Your task to perform on an android device: open app "Firefox Browser" Image 0: 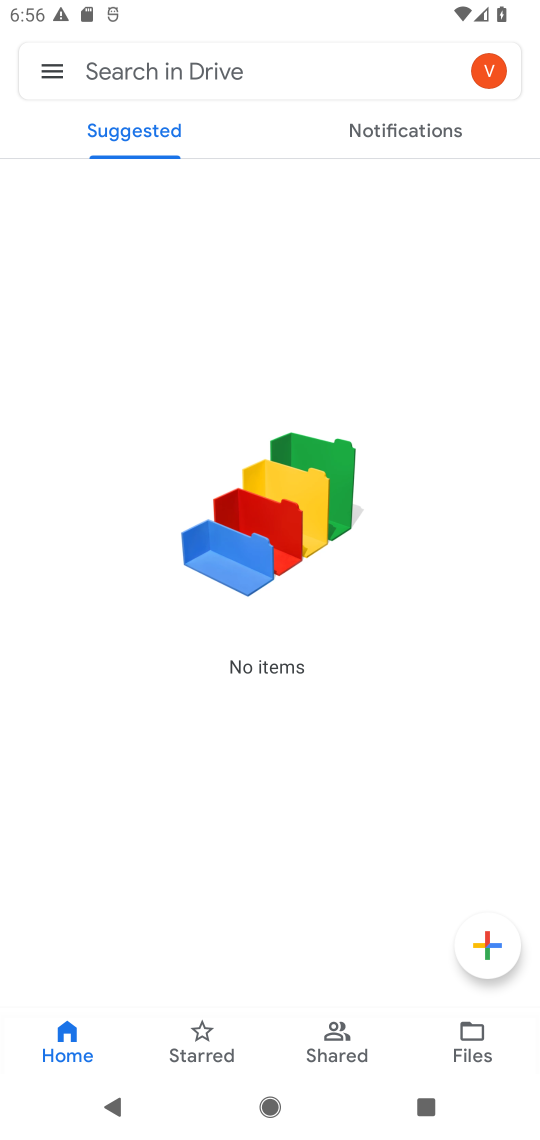
Step 0: press home button
Your task to perform on an android device: open app "Firefox Browser" Image 1: 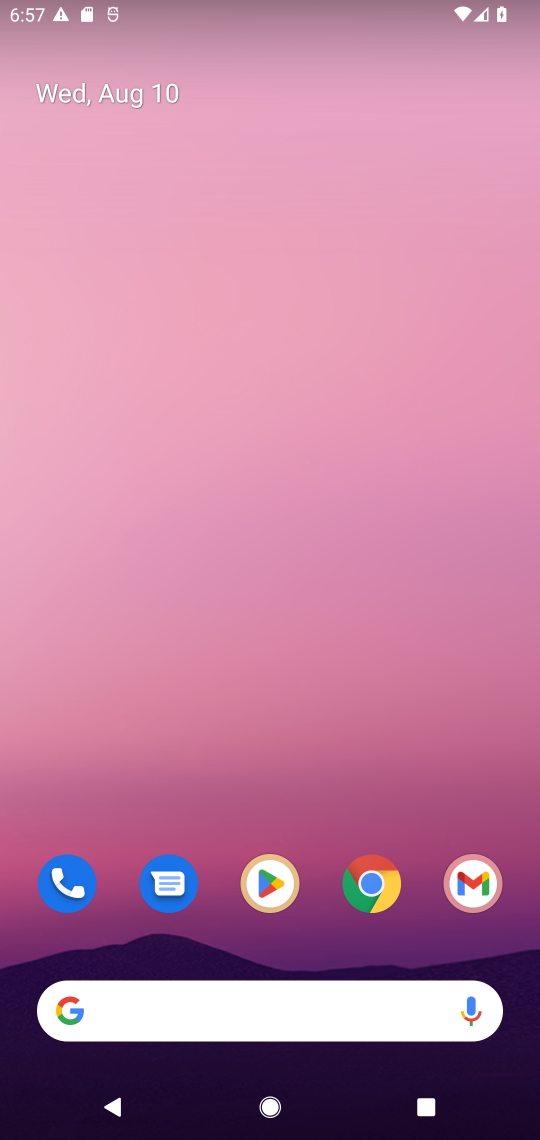
Step 1: drag from (319, 904) to (213, 18)
Your task to perform on an android device: open app "Firefox Browser" Image 2: 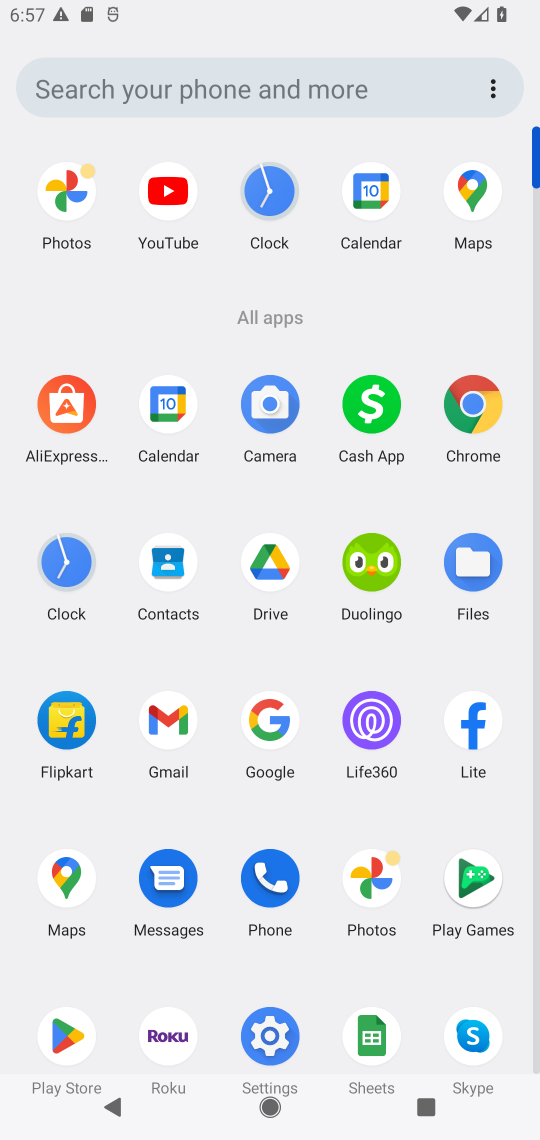
Step 2: drag from (384, 855) to (396, 297)
Your task to perform on an android device: open app "Firefox Browser" Image 3: 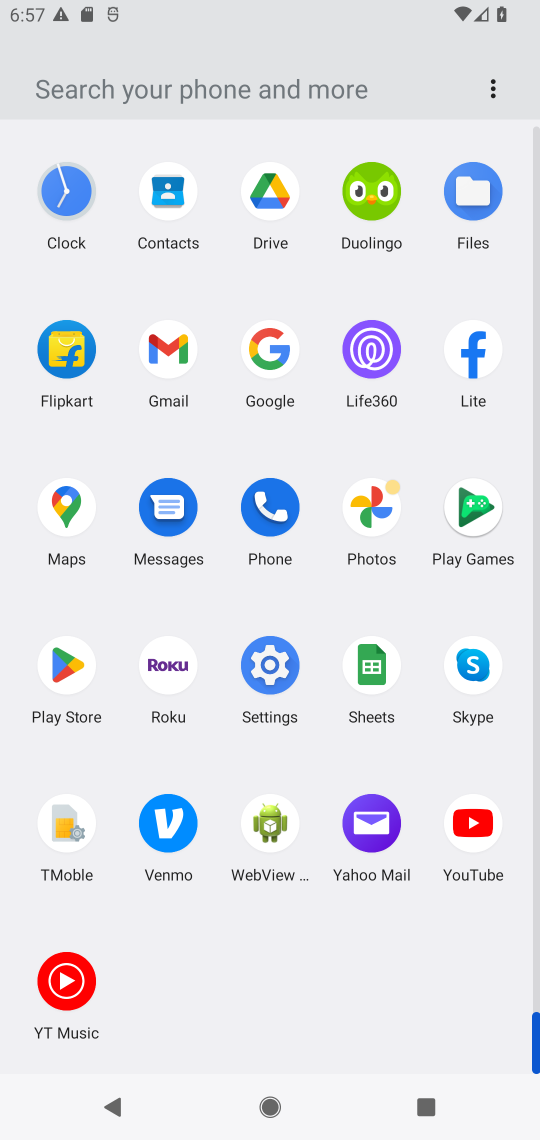
Step 3: click (64, 654)
Your task to perform on an android device: open app "Firefox Browser" Image 4: 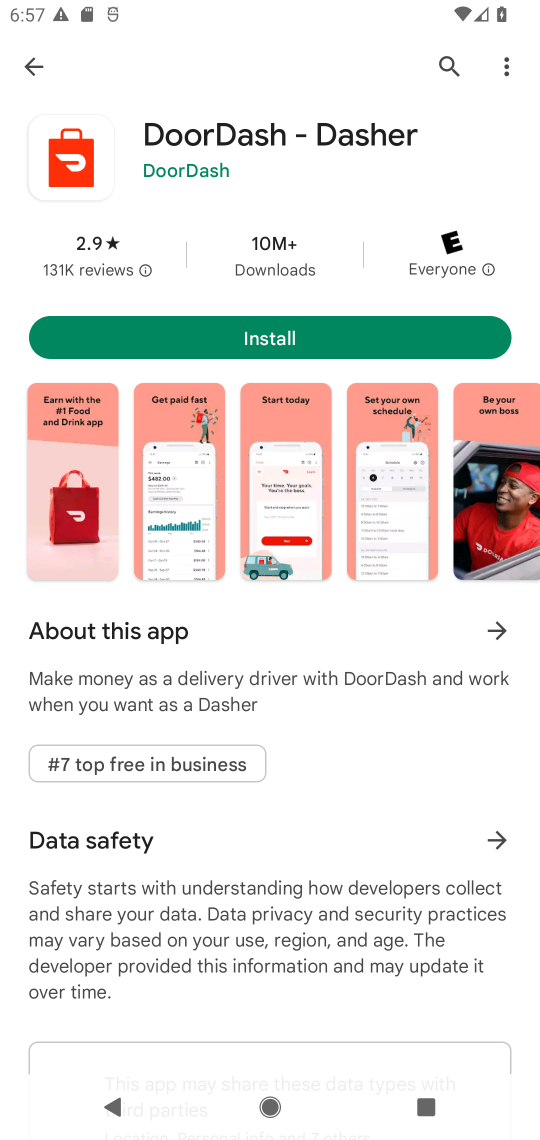
Step 4: click (451, 60)
Your task to perform on an android device: open app "Firefox Browser" Image 5: 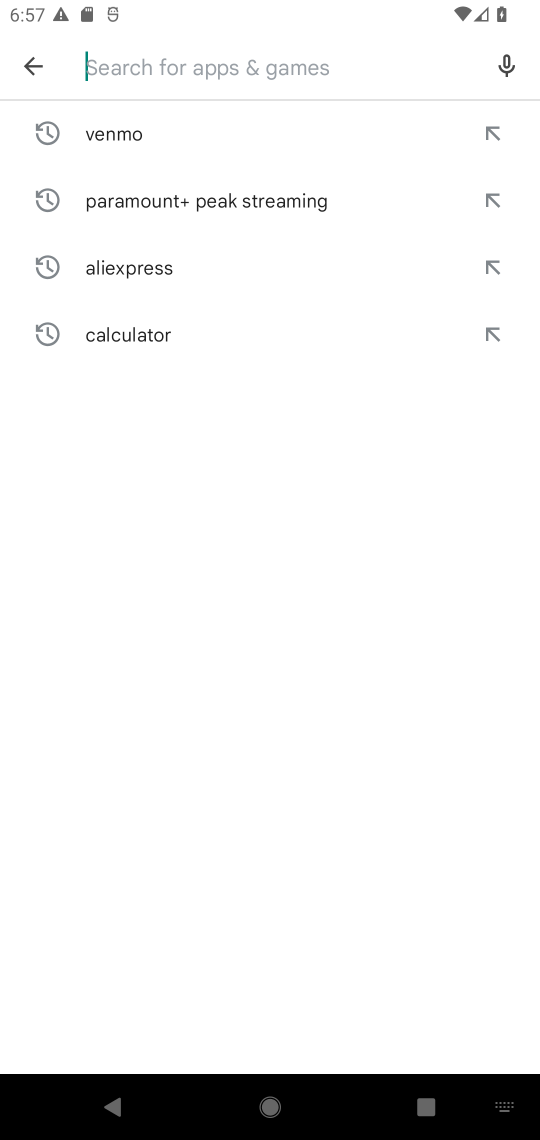
Step 5: type "Firefox Browser"
Your task to perform on an android device: open app "Firefox Browser" Image 6: 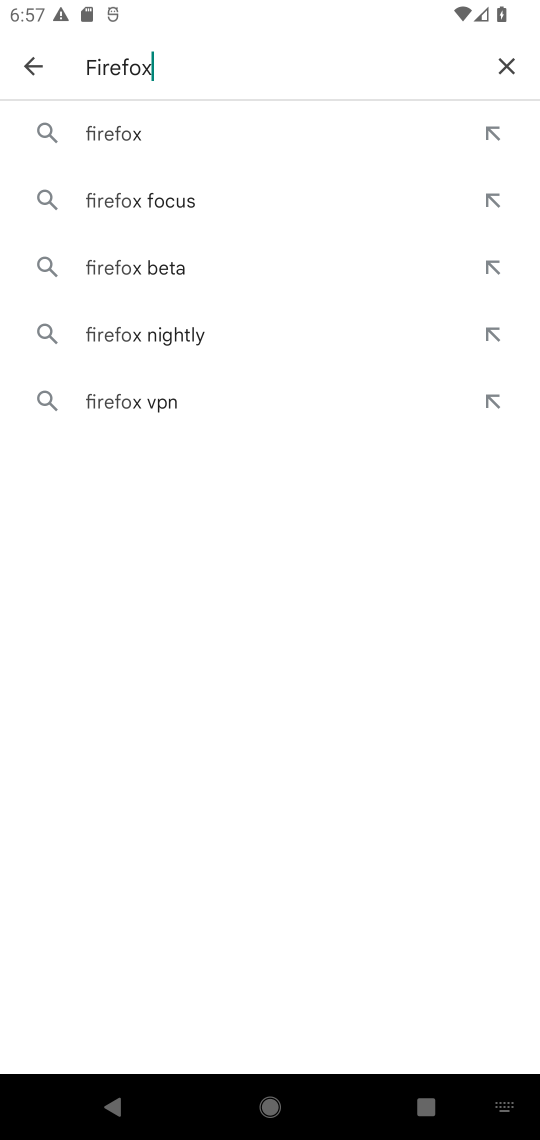
Step 6: type ""
Your task to perform on an android device: open app "Firefox Browser" Image 7: 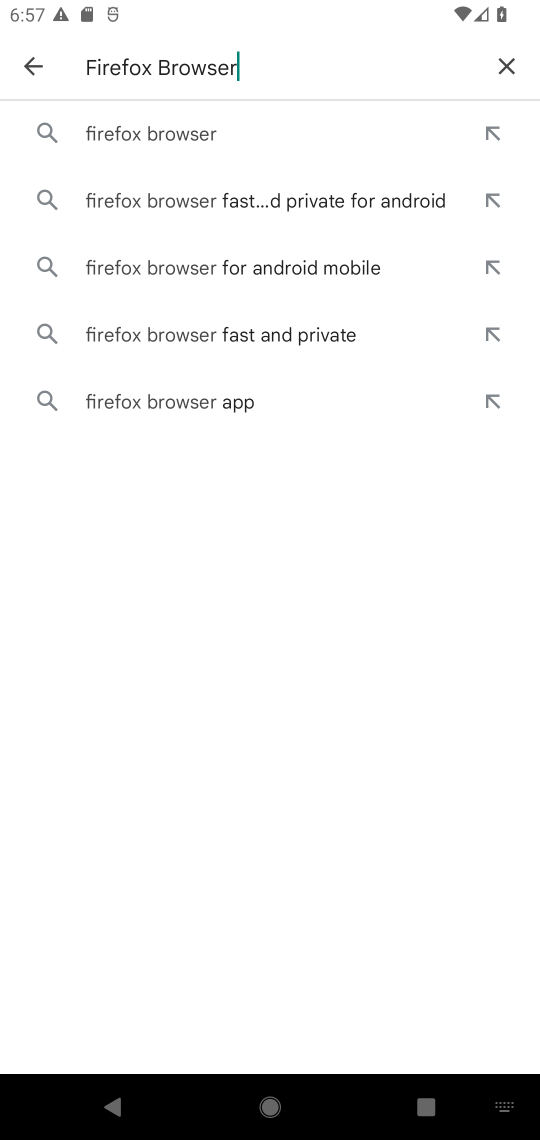
Step 7: click (175, 133)
Your task to perform on an android device: open app "Firefox Browser" Image 8: 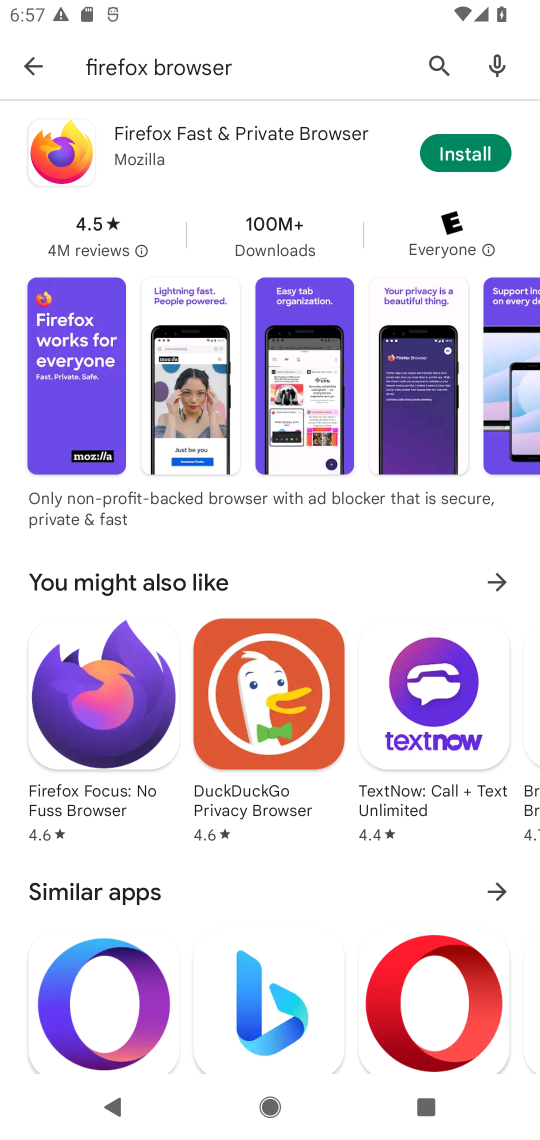
Step 8: task complete